Your task to perform on an android device: change alarm snooze length Image 0: 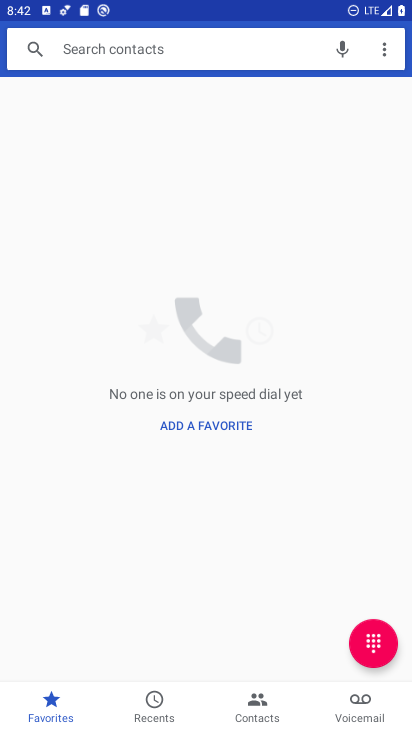
Step 0: press home button
Your task to perform on an android device: change alarm snooze length Image 1: 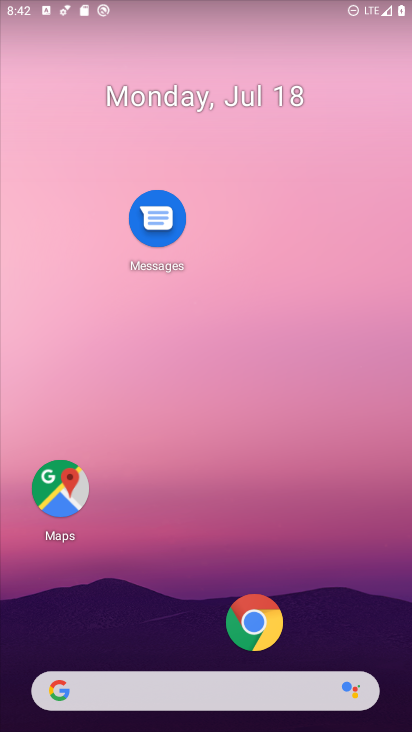
Step 1: drag from (184, 706) to (204, 209)
Your task to perform on an android device: change alarm snooze length Image 2: 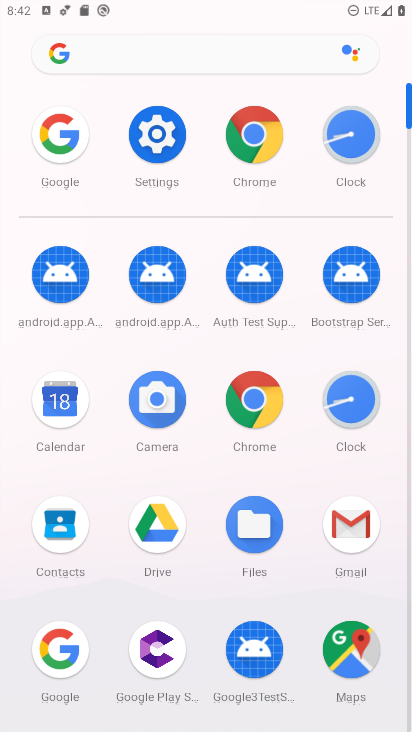
Step 2: click (351, 431)
Your task to perform on an android device: change alarm snooze length Image 3: 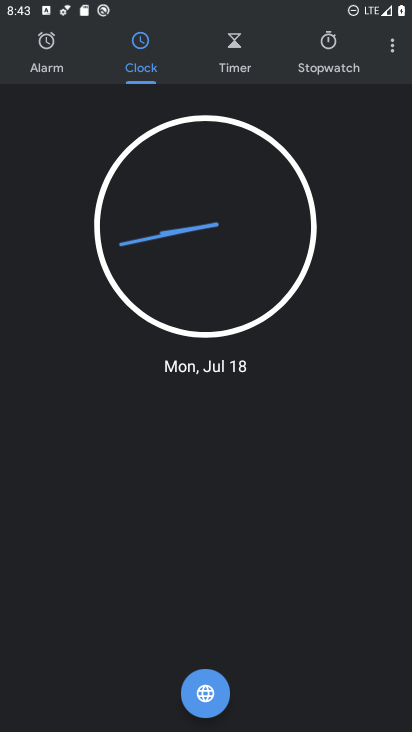
Step 3: click (396, 54)
Your task to perform on an android device: change alarm snooze length Image 4: 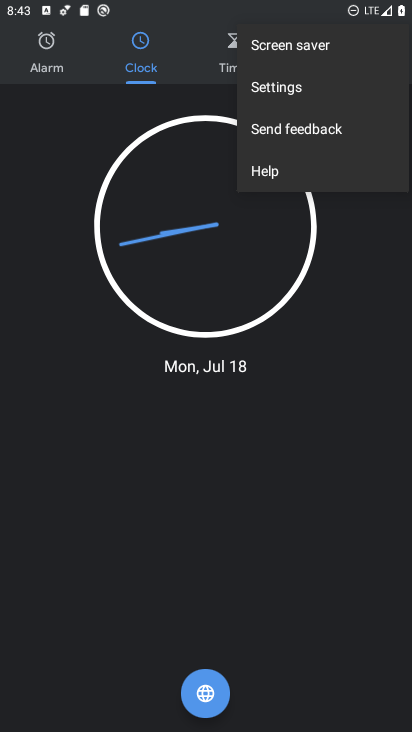
Step 4: click (283, 89)
Your task to perform on an android device: change alarm snooze length Image 5: 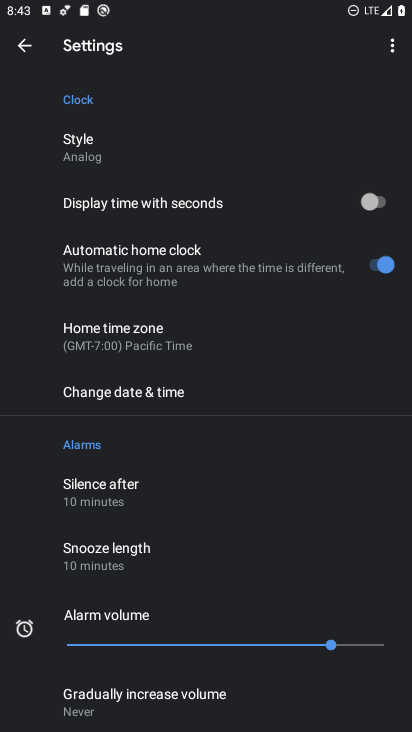
Step 5: click (132, 570)
Your task to perform on an android device: change alarm snooze length Image 6: 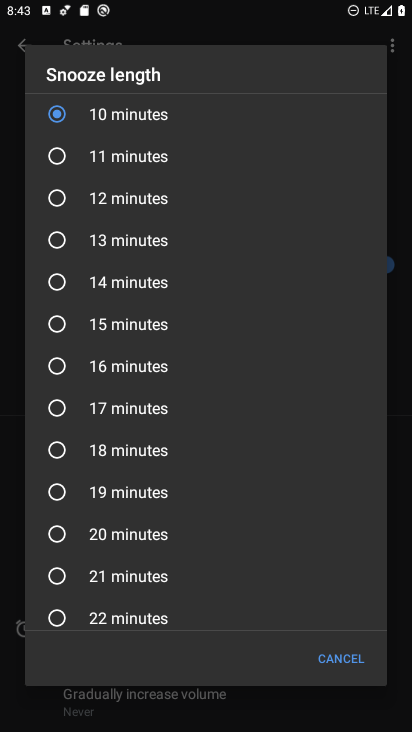
Step 6: click (61, 216)
Your task to perform on an android device: change alarm snooze length Image 7: 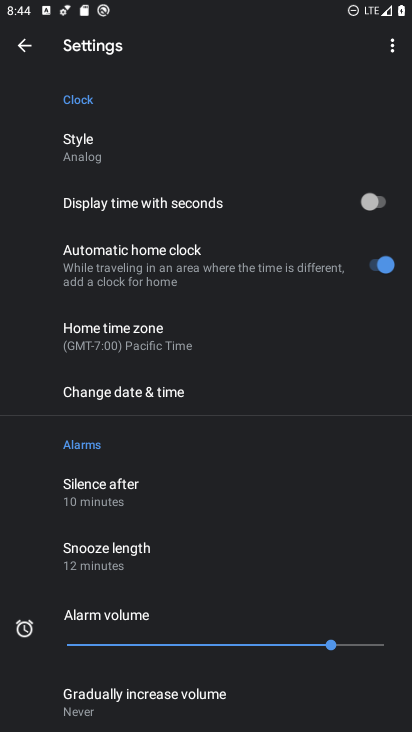
Step 7: task complete